Your task to perform on an android device: check data usage Image 0: 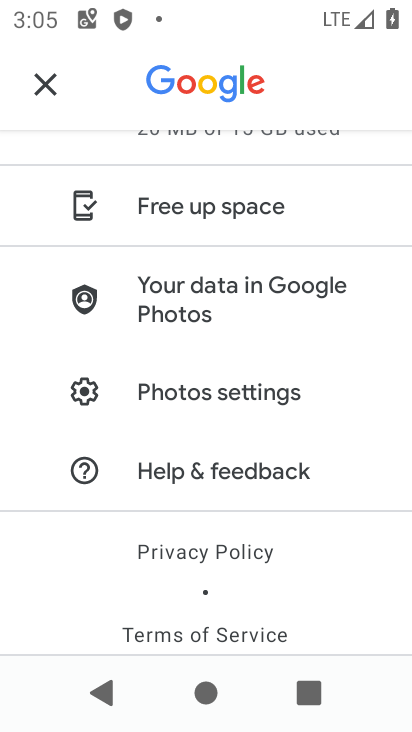
Step 0: press home button
Your task to perform on an android device: check data usage Image 1: 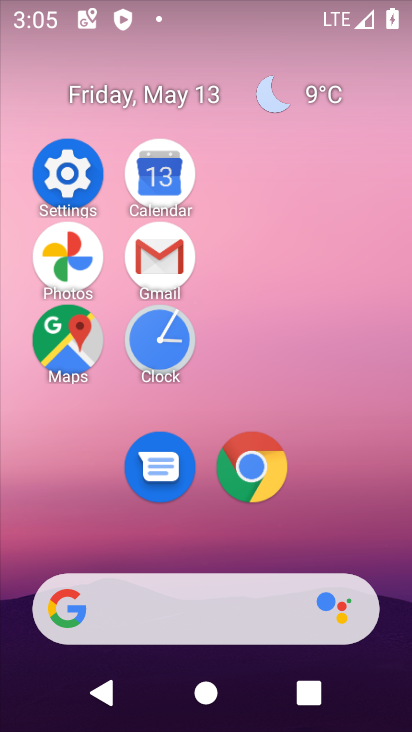
Step 1: click (72, 169)
Your task to perform on an android device: check data usage Image 2: 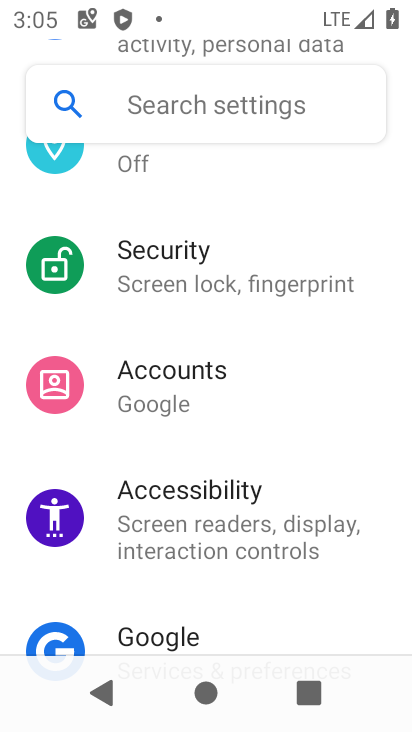
Step 2: drag from (297, 211) to (260, 572)
Your task to perform on an android device: check data usage Image 3: 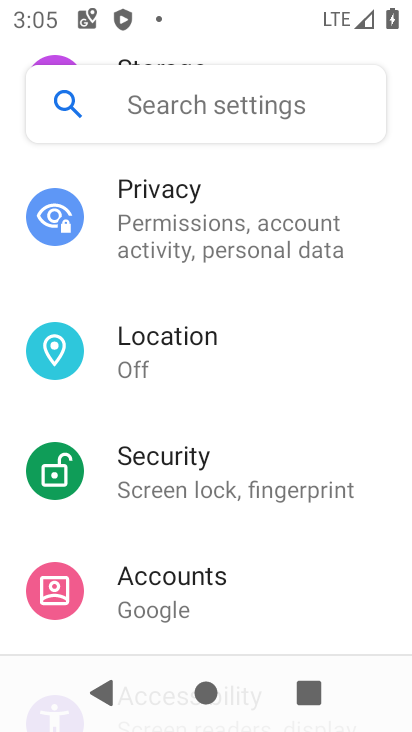
Step 3: drag from (289, 291) to (254, 644)
Your task to perform on an android device: check data usage Image 4: 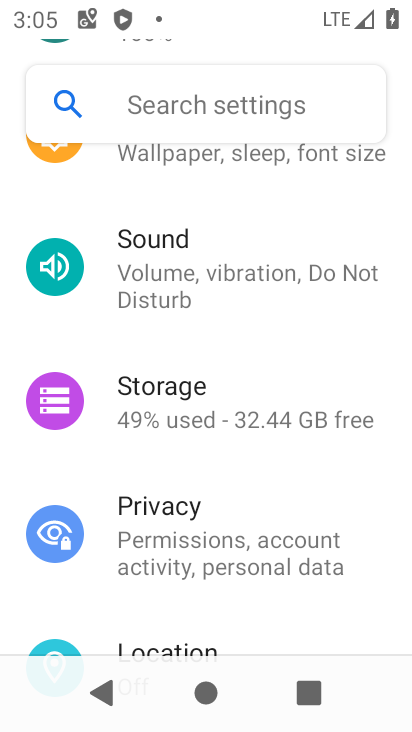
Step 4: drag from (301, 189) to (279, 533)
Your task to perform on an android device: check data usage Image 5: 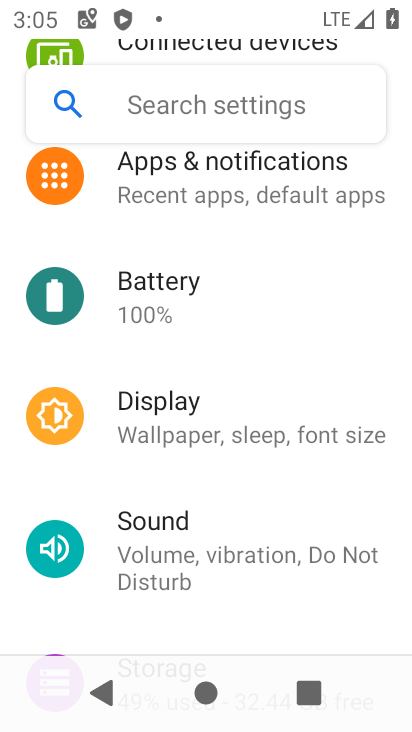
Step 5: drag from (298, 269) to (282, 474)
Your task to perform on an android device: check data usage Image 6: 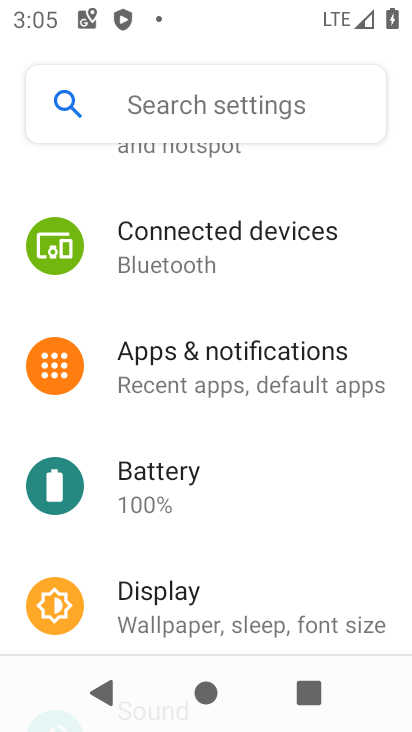
Step 6: drag from (306, 200) to (266, 543)
Your task to perform on an android device: check data usage Image 7: 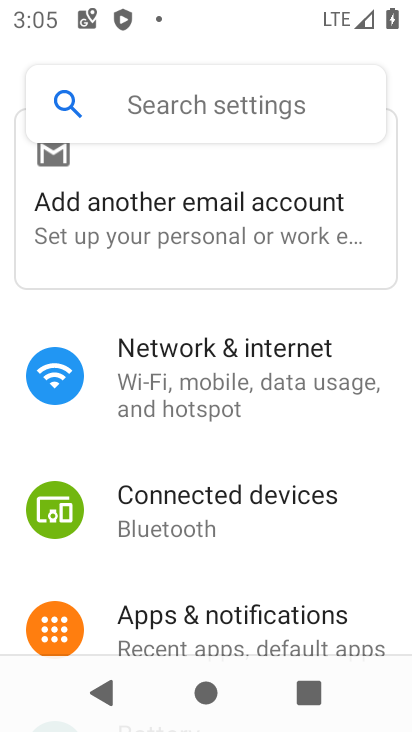
Step 7: click (258, 390)
Your task to perform on an android device: check data usage Image 8: 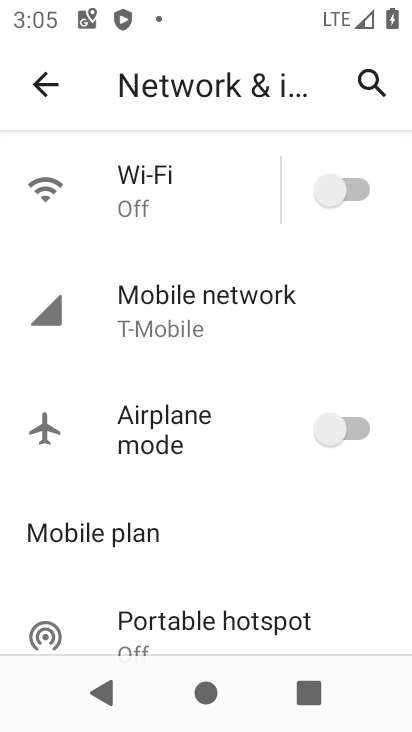
Step 8: click (199, 333)
Your task to perform on an android device: check data usage Image 9: 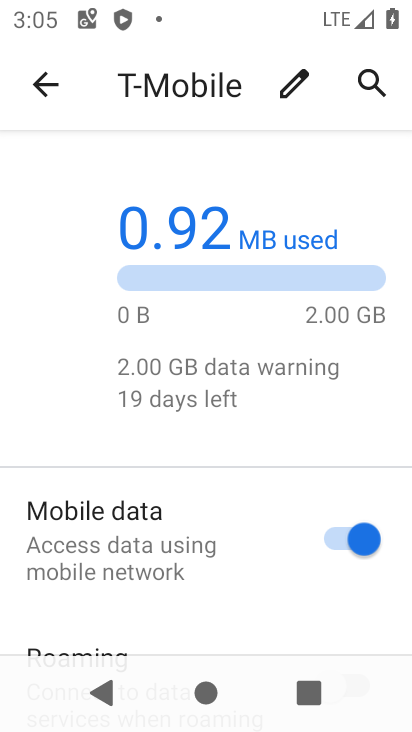
Step 9: task complete